Your task to perform on an android device: toggle notifications settings in the gmail app Image 0: 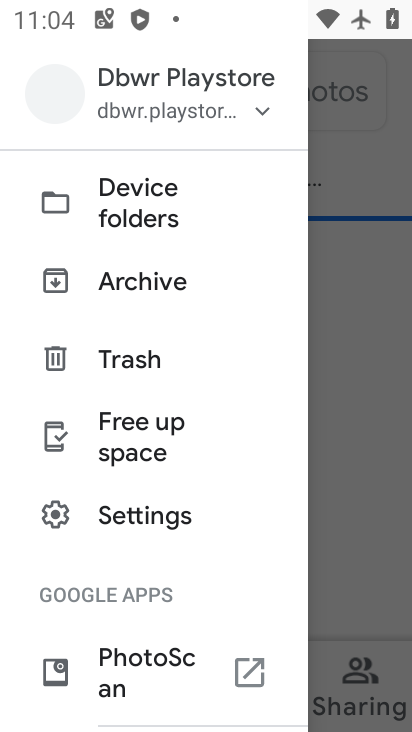
Step 0: press home button
Your task to perform on an android device: toggle notifications settings in the gmail app Image 1: 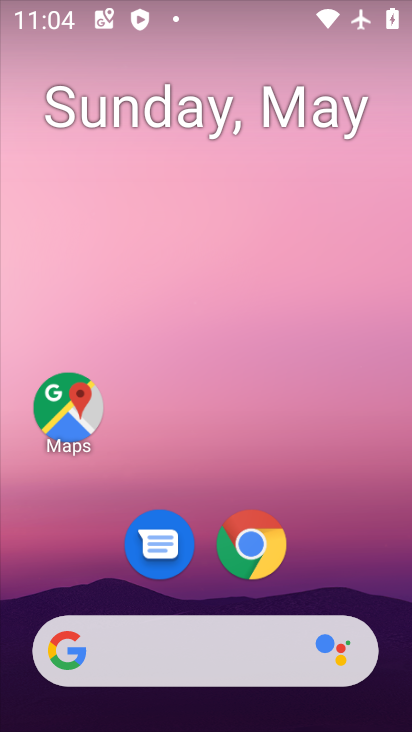
Step 1: drag from (346, 591) to (307, 270)
Your task to perform on an android device: toggle notifications settings in the gmail app Image 2: 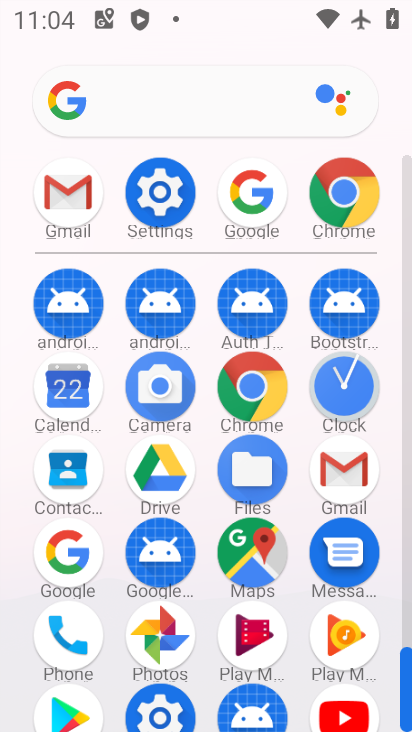
Step 2: click (336, 462)
Your task to perform on an android device: toggle notifications settings in the gmail app Image 3: 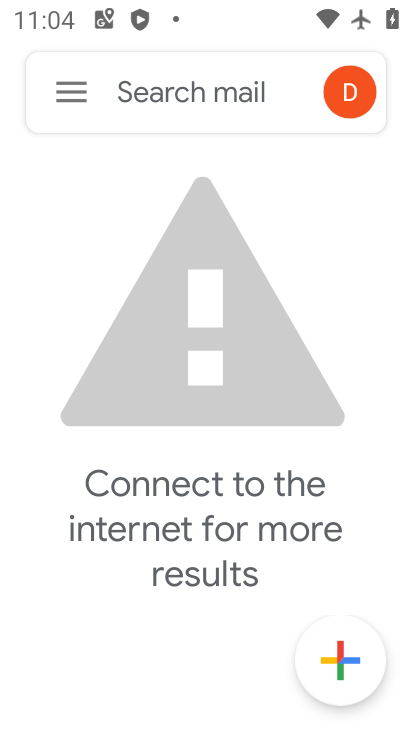
Step 3: click (59, 87)
Your task to perform on an android device: toggle notifications settings in the gmail app Image 4: 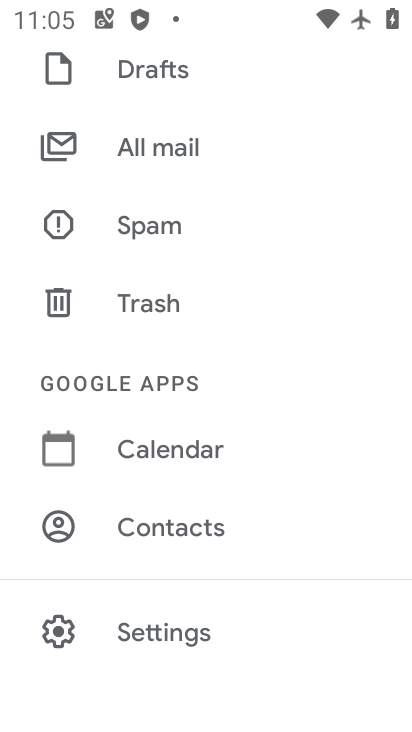
Step 4: click (200, 641)
Your task to perform on an android device: toggle notifications settings in the gmail app Image 5: 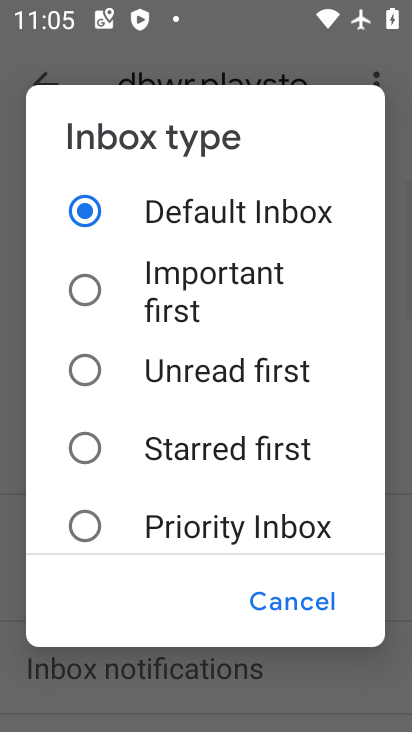
Step 5: click (286, 614)
Your task to perform on an android device: toggle notifications settings in the gmail app Image 6: 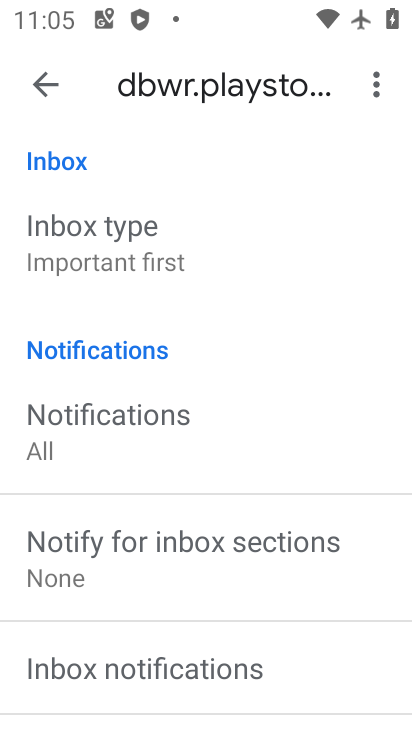
Step 6: click (101, 418)
Your task to perform on an android device: toggle notifications settings in the gmail app Image 7: 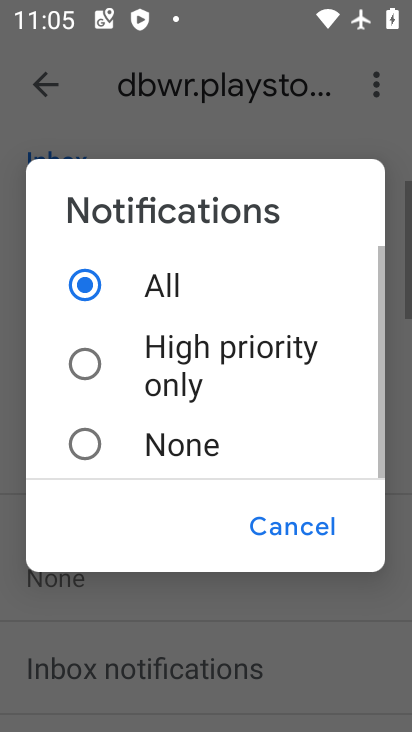
Step 7: click (186, 451)
Your task to perform on an android device: toggle notifications settings in the gmail app Image 8: 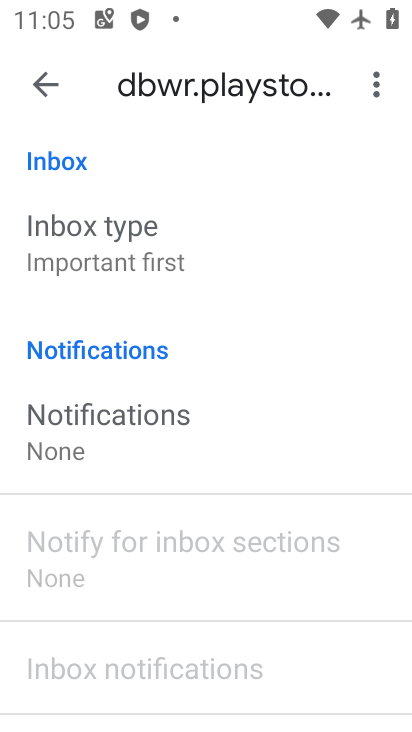
Step 8: task complete